Your task to perform on an android device: Open Youtube and go to the subscriptions tab Image 0: 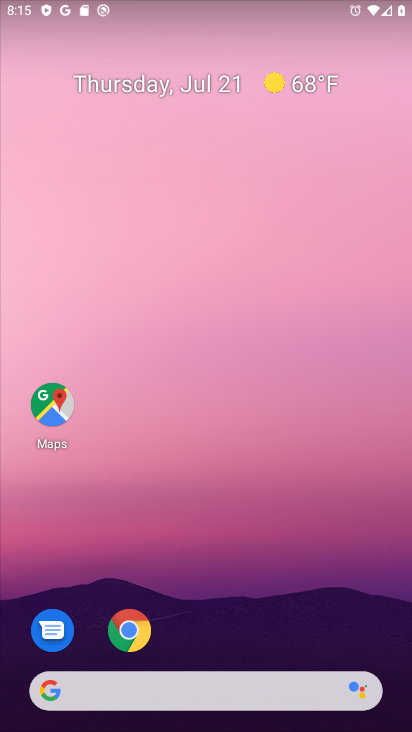
Step 0: drag from (258, 632) to (247, 163)
Your task to perform on an android device: Open Youtube and go to the subscriptions tab Image 1: 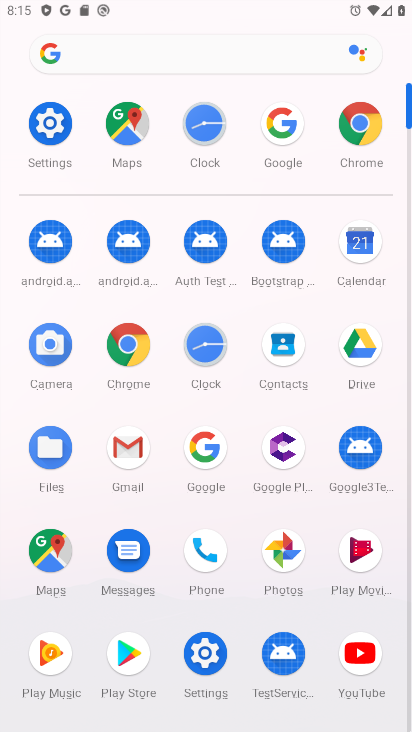
Step 1: click (340, 671)
Your task to perform on an android device: Open Youtube and go to the subscriptions tab Image 2: 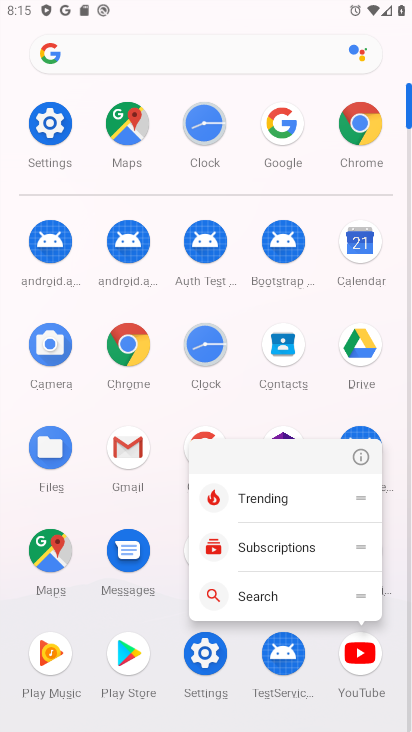
Step 2: click (347, 655)
Your task to perform on an android device: Open Youtube and go to the subscriptions tab Image 3: 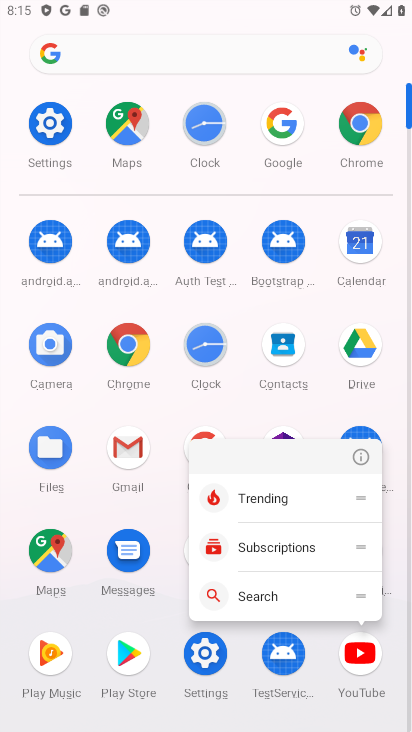
Step 3: click (371, 654)
Your task to perform on an android device: Open Youtube and go to the subscriptions tab Image 4: 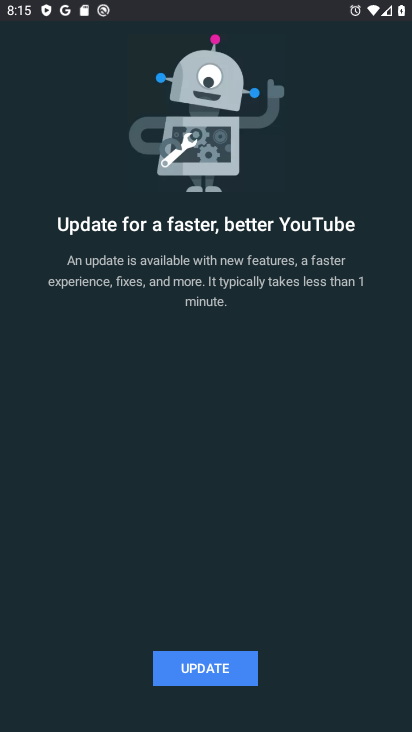
Step 4: click (236, 669)
Your task to perform on an android device: Open Youtube and go to the subscriptions tab Image 5: 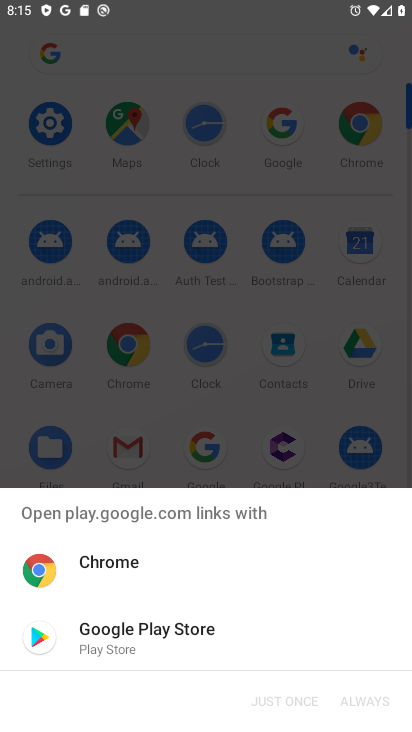
Step 5: click (119, 623)
Your task to perform on an android device: Open Youtube and go to the subscriptions tab Image 6: 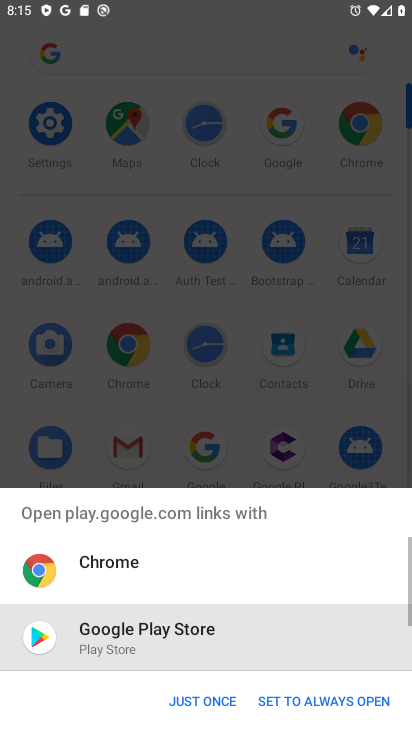
Step 6: click (222, 697)
Your task to perform on an android device: Open Youtube and go to the subscriptions tab Image 7: 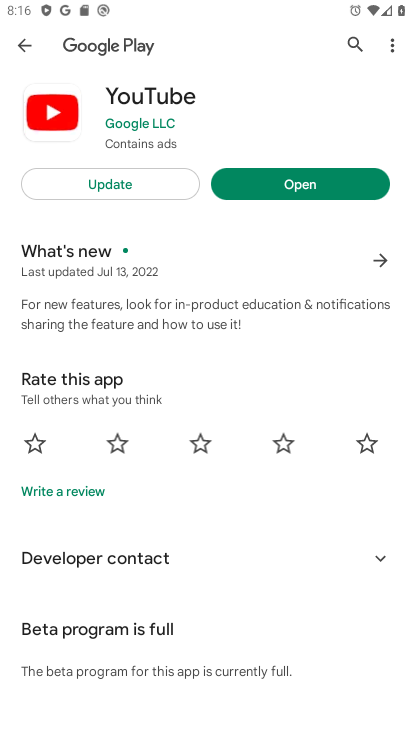
Step 7: click (132, 201)
Your task to perform on an android device: Open Youtube and go to the subscriptions tab Image 8: 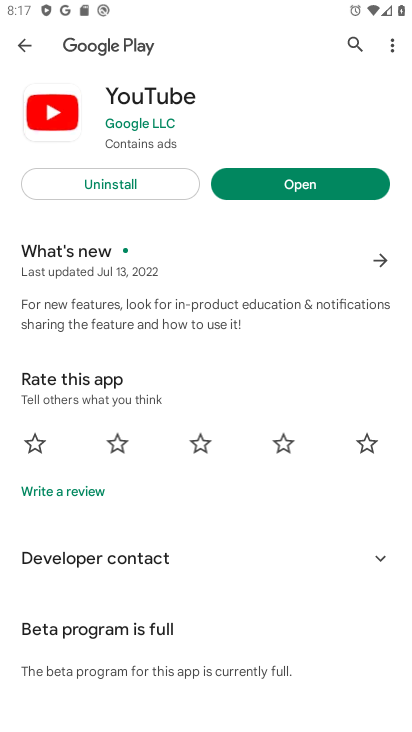
Step 8: click (331, 191)
Your task to perform on an android device: Open Youtube and go to the subscriptions tab Image 9: 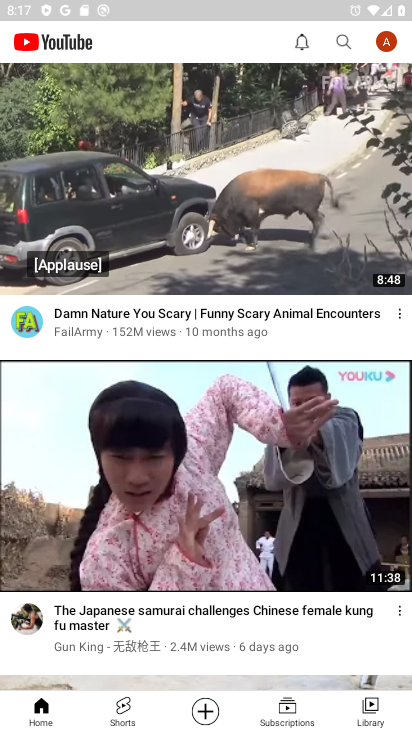
Step 9: click (294, 726)
Your task to perform on an android device: Open Youtube and go to the subscriptions tab Image 10: 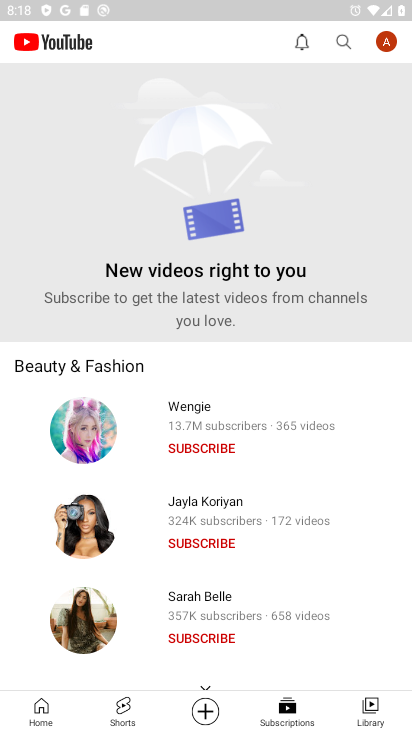
Step 10: task complete